Your task to perform on an android device: read, delete, or share a saved page in the chrome app Image 0: 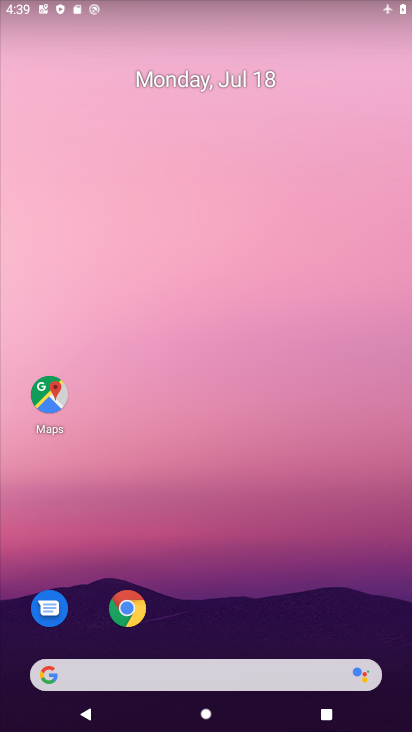
Step 0: drag from (300, 583) to (361, 93)
Your task to perform on an android device: read, delete, or share a saved page in the chrome app Image 1: 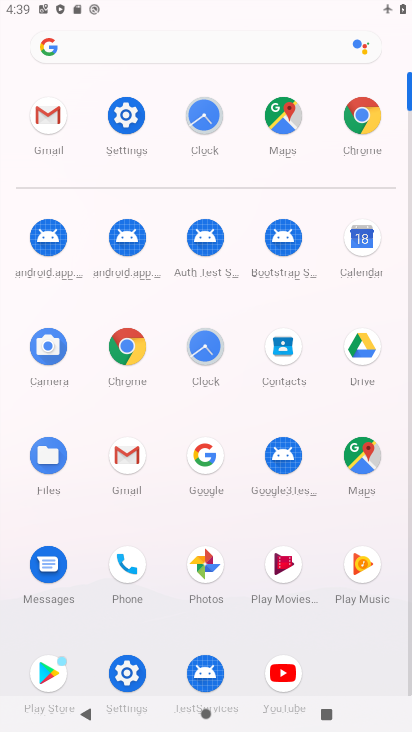
Step 1: click (362, 113)
Your task to perform on an android device: read, delete, or share a saved page in the chrome app Image 2: 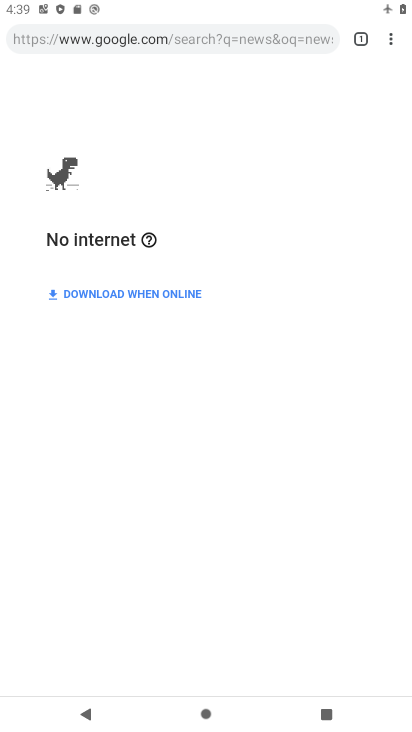
Step 2: task complete